Your task to perform on an android device: search for starred emails in the gmail app Image 0: 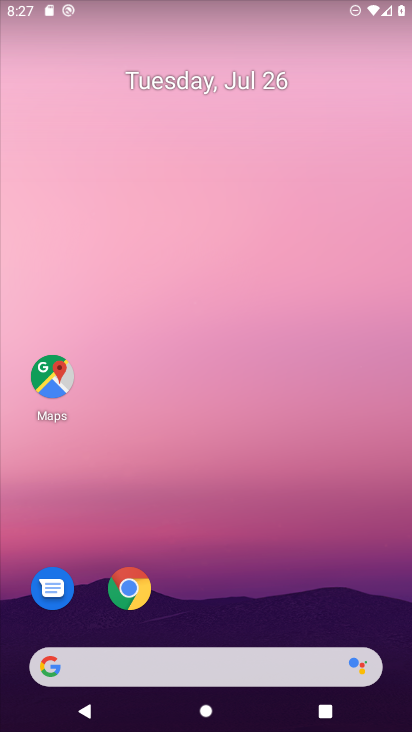
Step 0: drag from (243, 645) to (229, 3)
Your task to perform on an android device: search for starred emails in the gmail app Image 1: 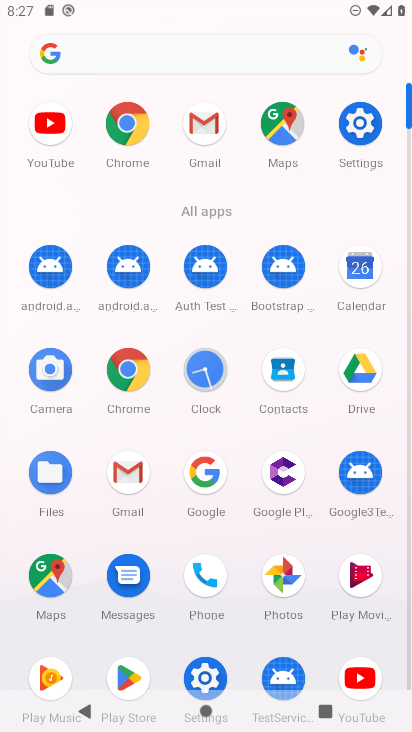
Step 1: click (199, 127)
Your task to perform on an android device: search for starred emails in the gmail app Image 2: 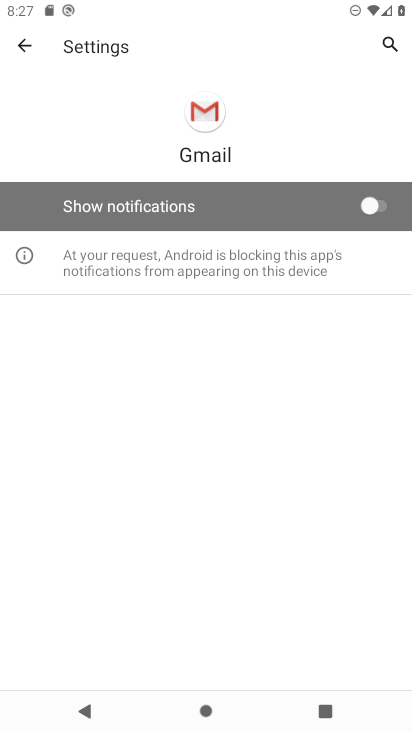
Step 2: click (22, 49)
Your task to perform on an android device: search for starred emails in the gmail app Image 3: 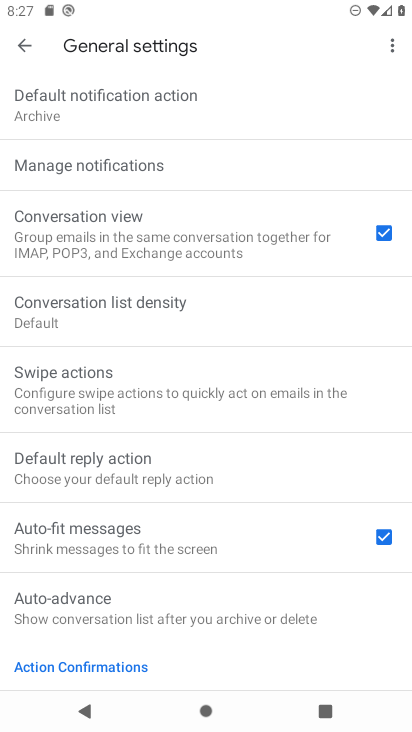
Step 3: click (22, 49)
Your task to perform on an android device: search for starred emails in the gmail app Image 4: 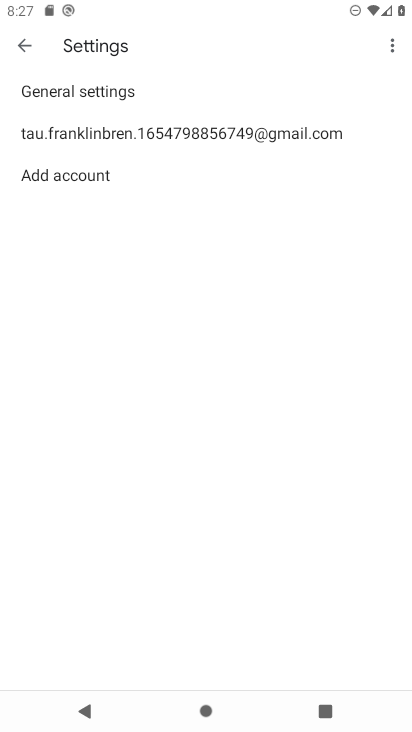
Step 4: click (22, 49)
Your task to perform on an android device: search for starred emails in the gmail app Image 5: 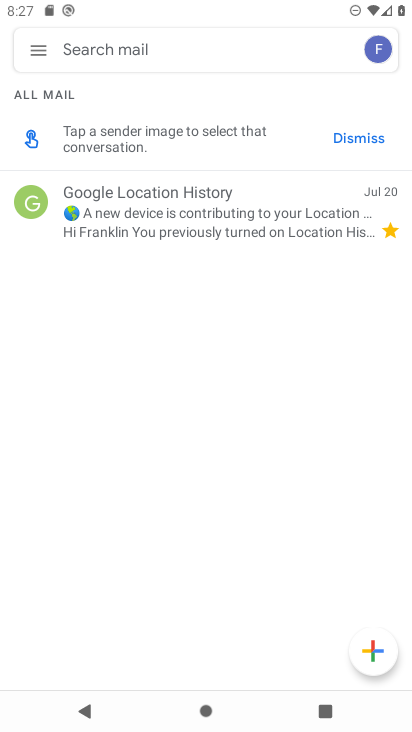
Step 5: click (39, 46)
Your task to perform on an android device: search for starred emails in the gmail app Image 6: 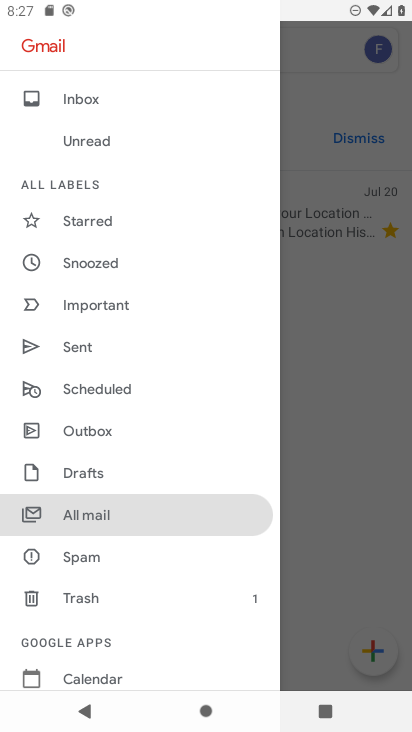
Step 6: click (70, 224)
Your task to perform on an android device: search for starred emails in the gmail app Image 7: 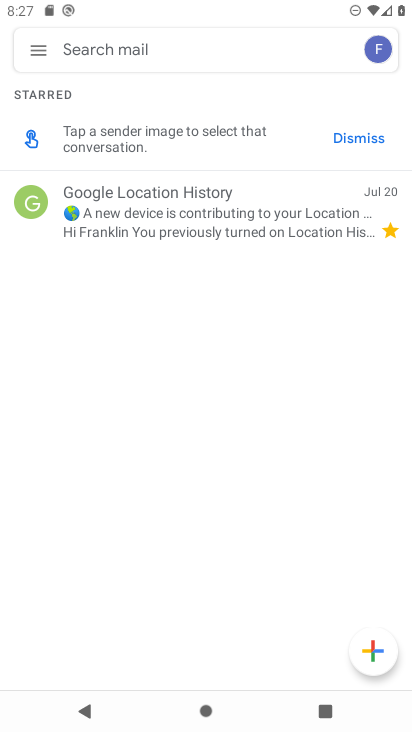
Step 7: task complete